Your task to perform on an android device: Open Reddit.com Image 0: 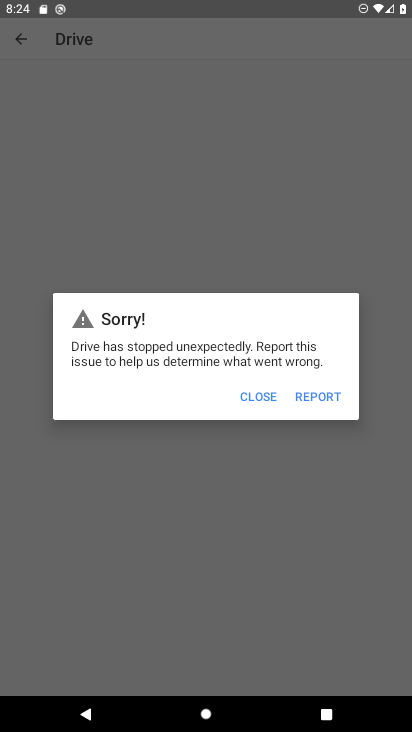
Step 0: press home button
Your task to perform on an android device: Open Reddit.com Image 1: 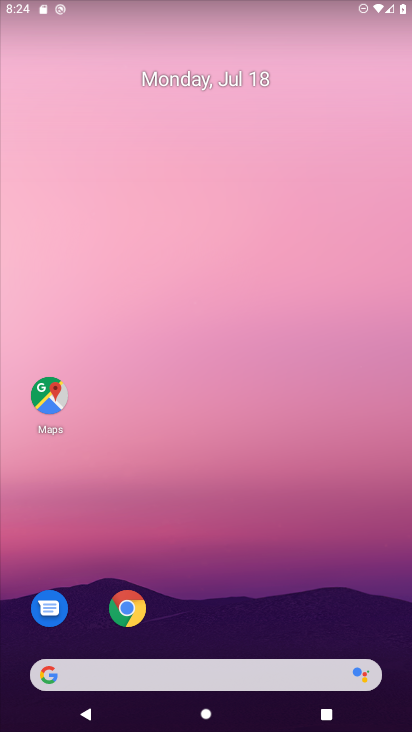
Step 1: click (133, 597)
Your task to perform on an android device: Open Reddit.com Image 2: 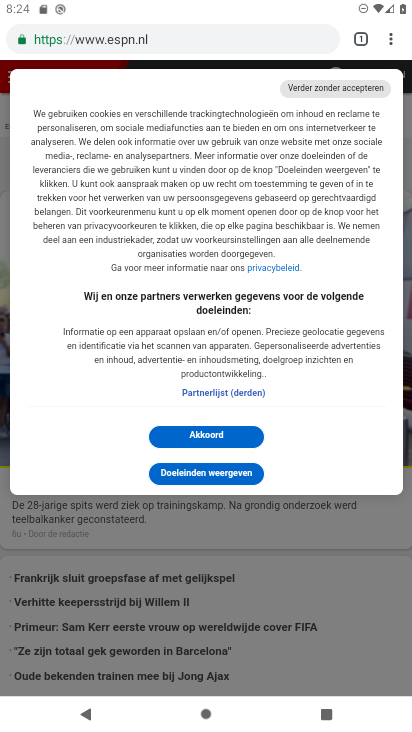
Step 2: click (184, 31)
Your task to perform on an android device: Open Reddit.com Image 3: 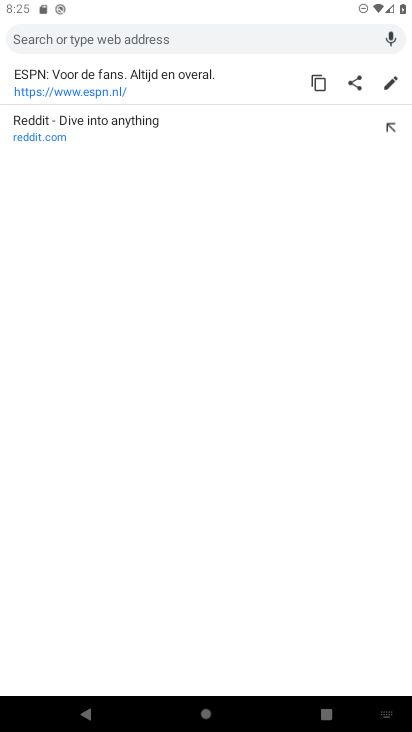
Step 3: type "Reddit.com"
Your task to perform on an android device: Open Reddit.com Image 4: 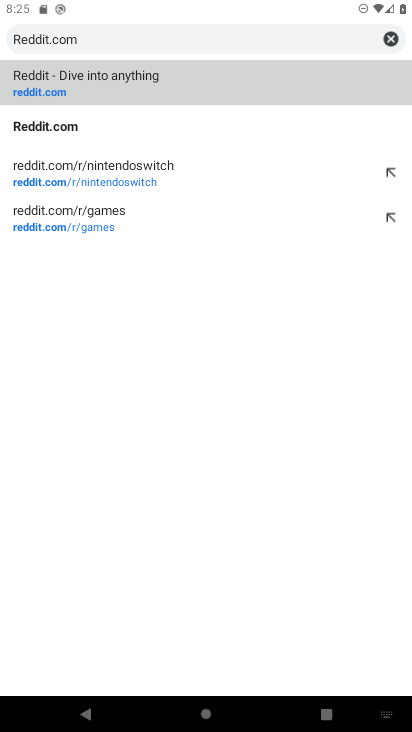
Step 4: click (154, 79)
Your task to perform on an android device: Open Reddit.com Image 5: 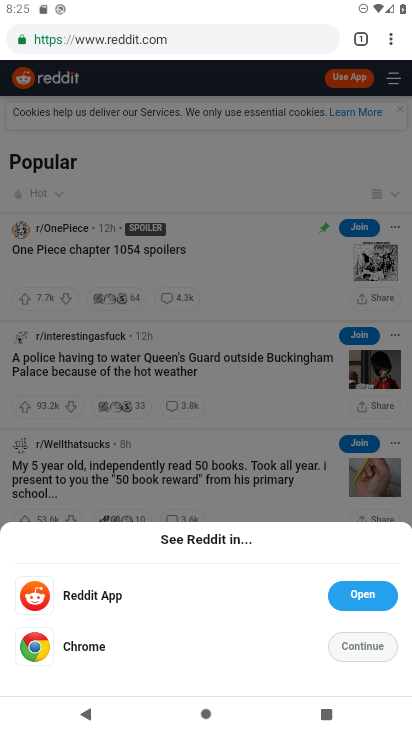
Step 5: task complete